Your task to perform on an android device: Open wifi settings Image 0: 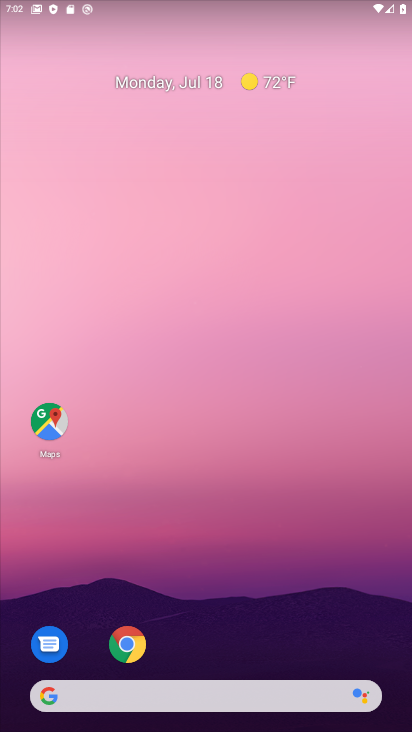
Step 0: drag from (335, 649) to (176, 6)
Your task to perform on an android device: Open wifi settings Image 1: 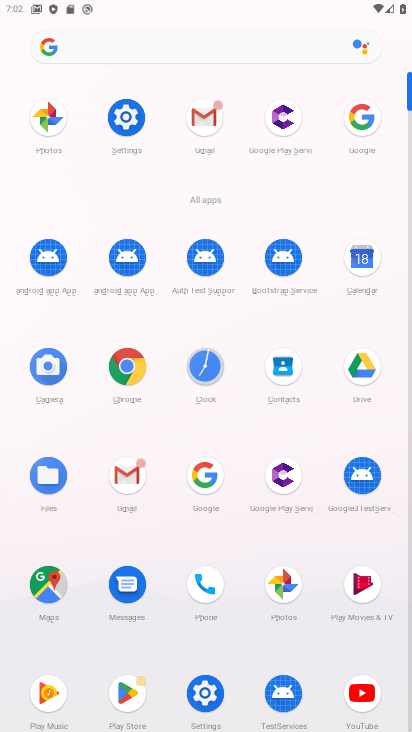
Step 1: click (134, 115)
Your task to perform on an android device: Open wifi settings Image 2: 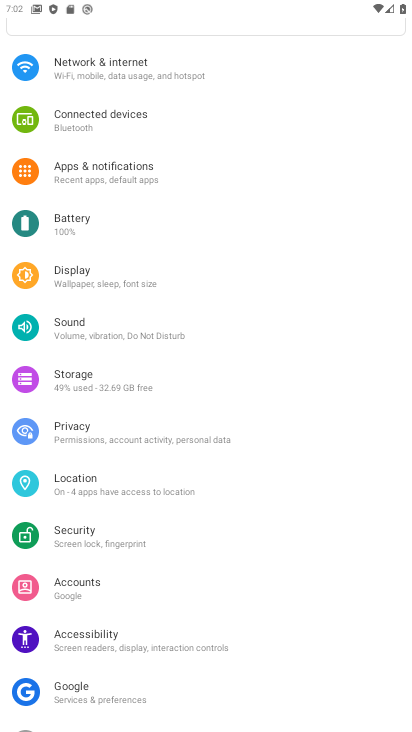
Step 2: click (86, 51)
Your task to perform on an android device: Open wifi settings Image 3: 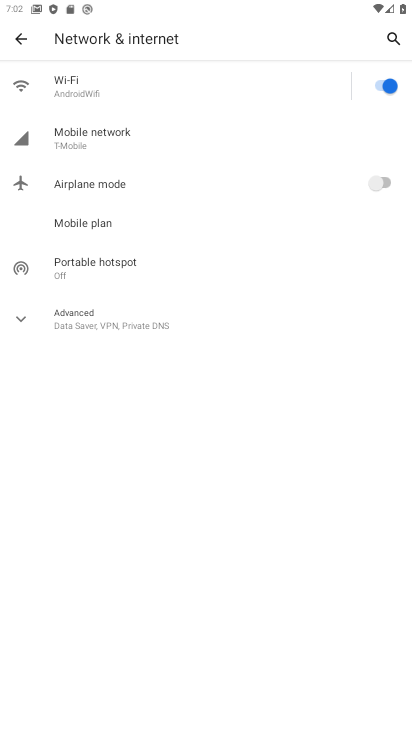
Step 3: click (104, 76)
Your task to perform on an android device: Open wifi settings Image 4: 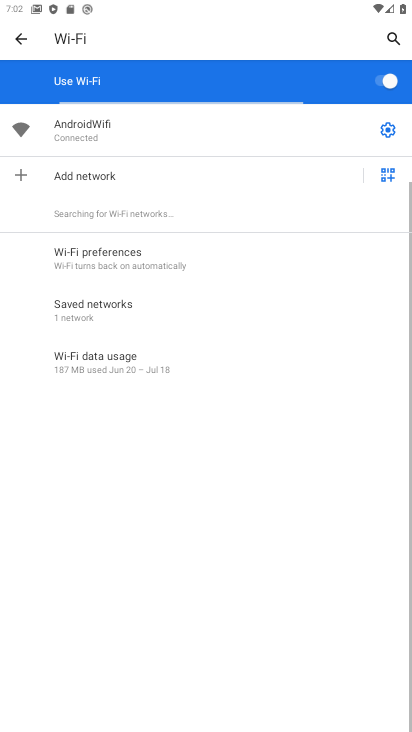
Step 4: task complete